Your task to perform on an android device: check out phone information Image 0: 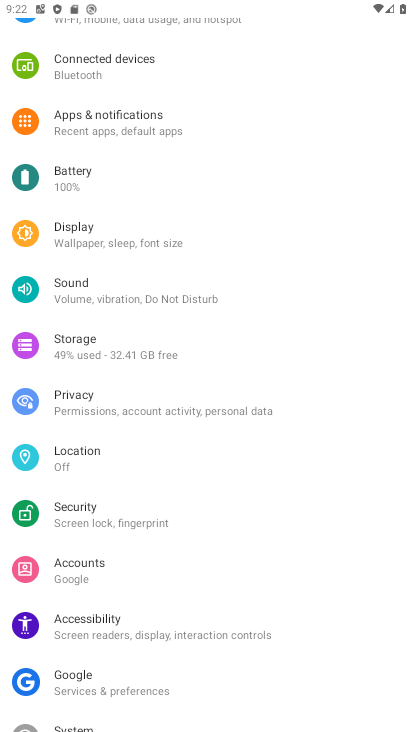
Step 0: press home button
Your task to perform on an android device: check out phone information Image 1: 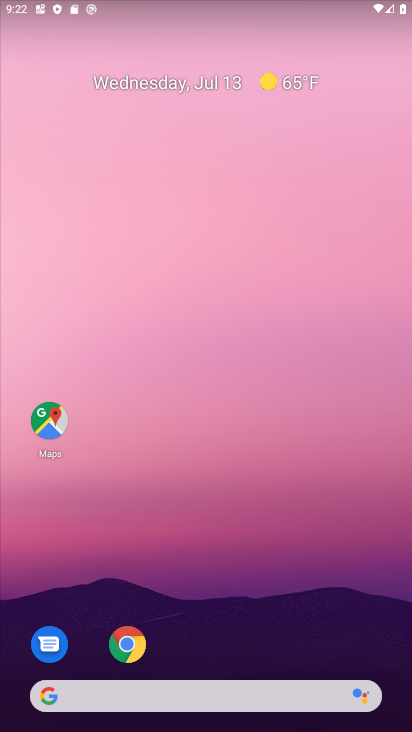
Step 1: drag from (292, 519) to (0, 195)
Your task to perform on an android device: check out phone information Image 2: 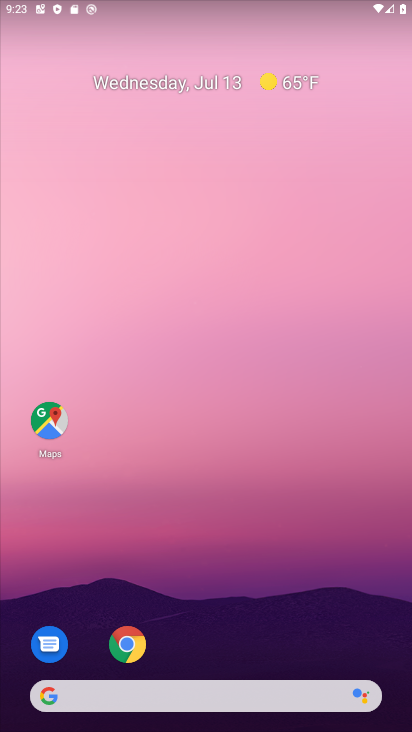
Step 2: drag from (333, 546) to (341, 111)
Your task to perform on an android device: check out phone information Image 3: 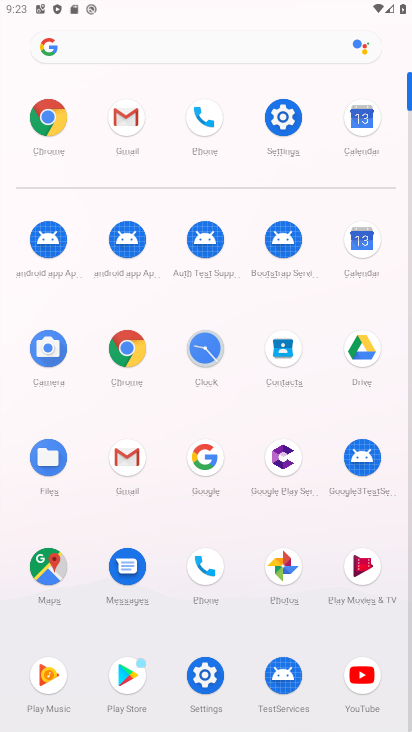
Step 3: click (276, 128)
Your task to perform on an android device: check out phone information Image 4: 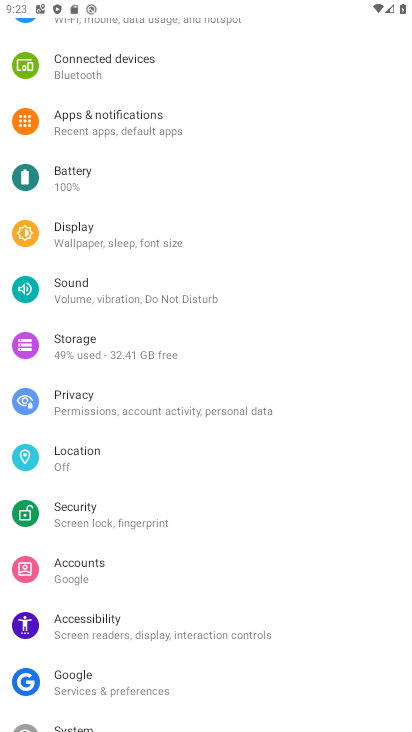
Step 4: drag from (186, 625) to (208, 68)
Your task to perform on an android device: check out phone information Image 5: 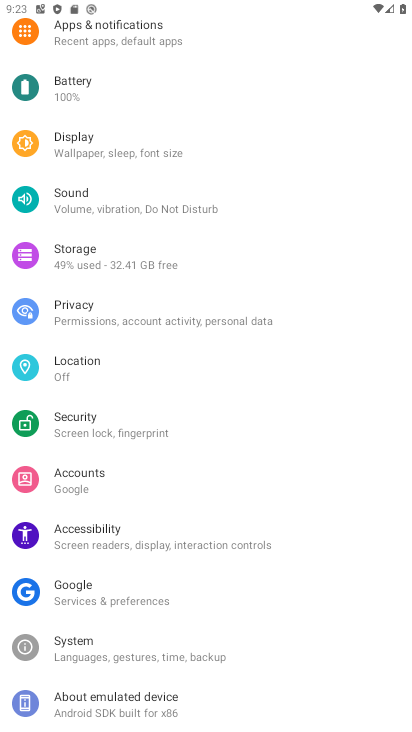
Step 5: click (126, 723)
Your task to perform on an android device: check out phone information Image 6: 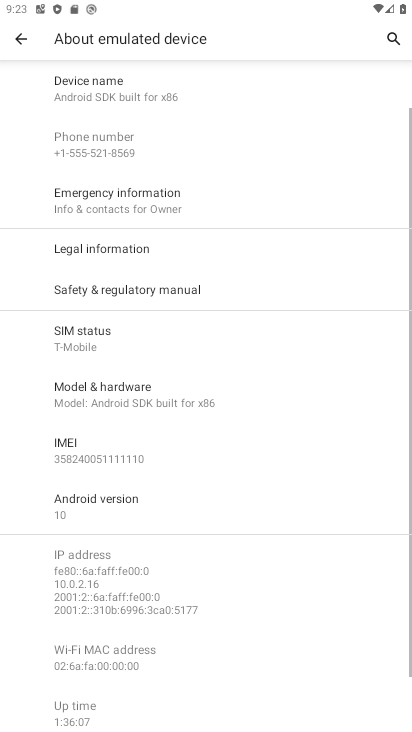
Step 6: task complete